Your task to perform on an android device: star an email in the gmail app Image 0: 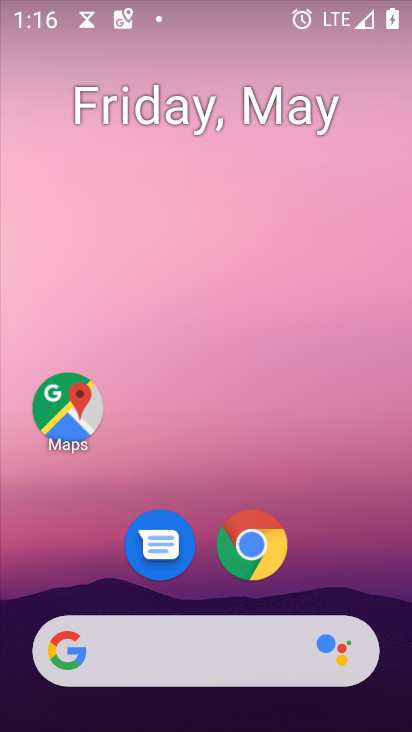
Step 0: drag from (357, 559) to (317, 184)
Your task to perform on an android device: star an email in the gmail app Image 1: 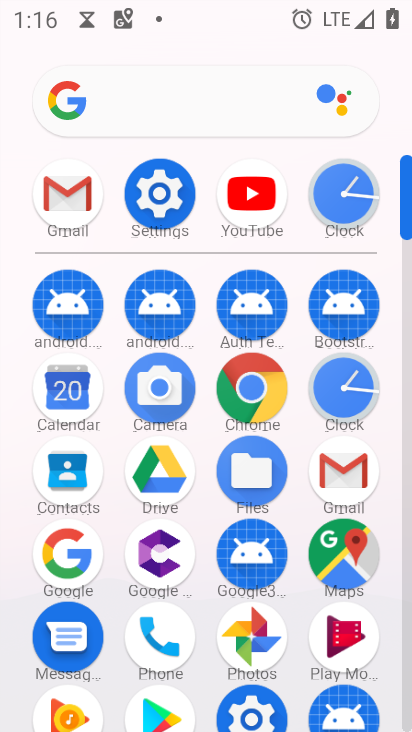
Step 1: click (66, 189)
Your task to perform on an android device: star an email in the gmail app Image 2: 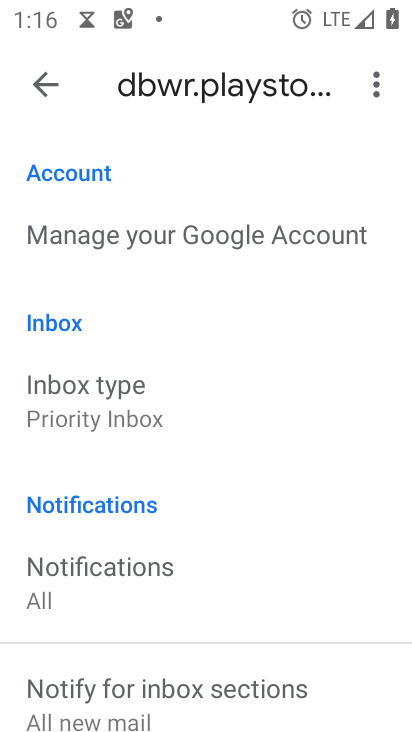
Step 2: click (37, 86)
Your task to perform on an android device: star an email in the gmail app Image 3: 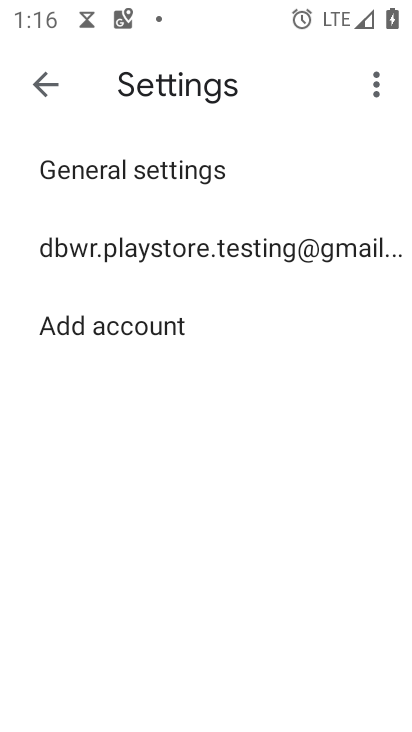
Step 3: click (37, 86)
Your task to perform on an android device: star an email in the gmail app Image 4: 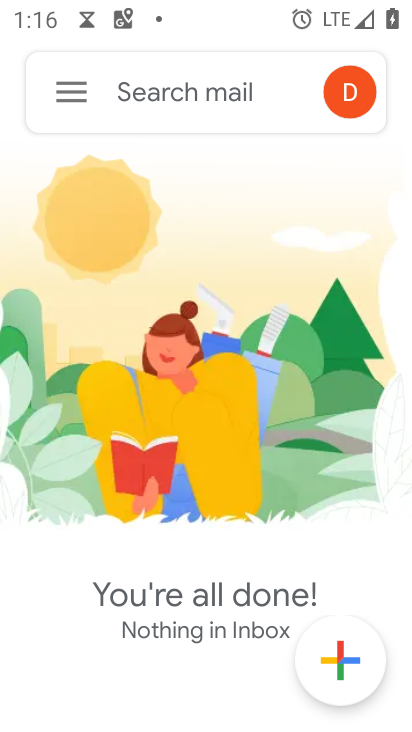
Step 4: click (67, 92)
Your task to perform on an android device: star an email in the gmail app Image 5: 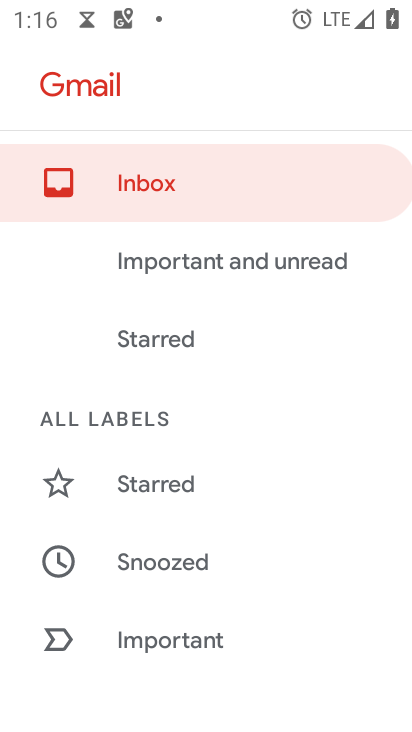
Step 5: drag from (311, 608) to (296, 227)
Your task to perform on an android device: star an email in the gmail app Image 6: 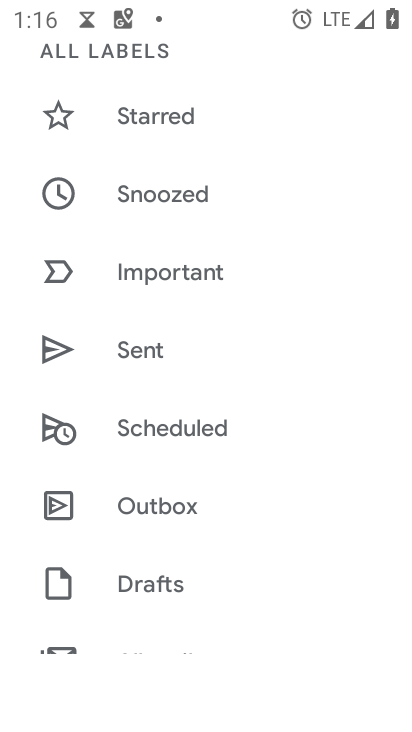
Step 6: drag from (260, 586) to (246, 253)
Your task to perform on an android device: star an email in the gmail app Image 7: 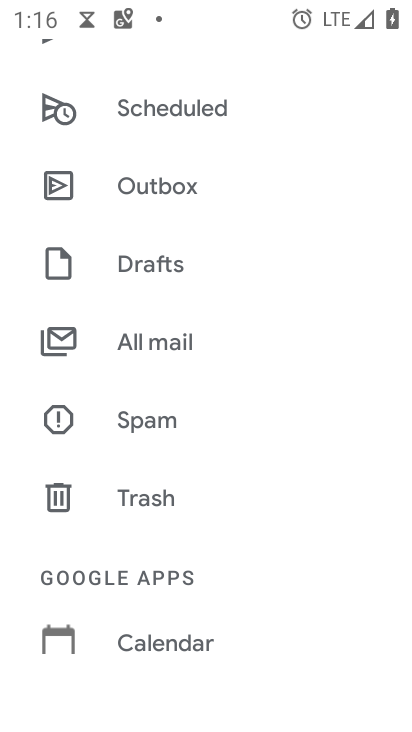
Step 7: click (143, 346)
Your task to perform on an android device: star an email in the gmail app Image 8: 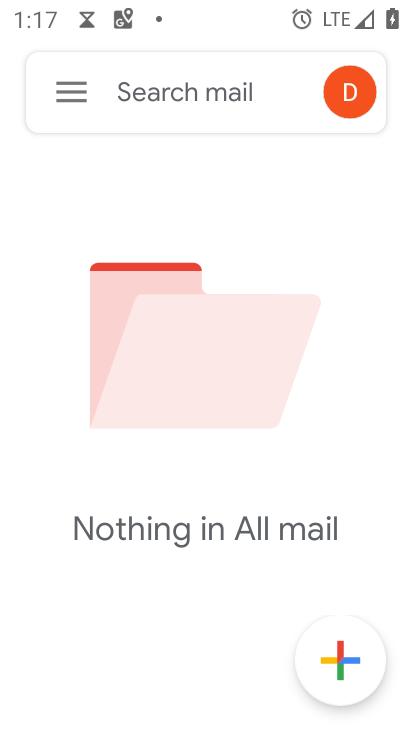
Step 8: task complete